Your task to perform on an android device: What's the weather going to be this weekend? Image 0: 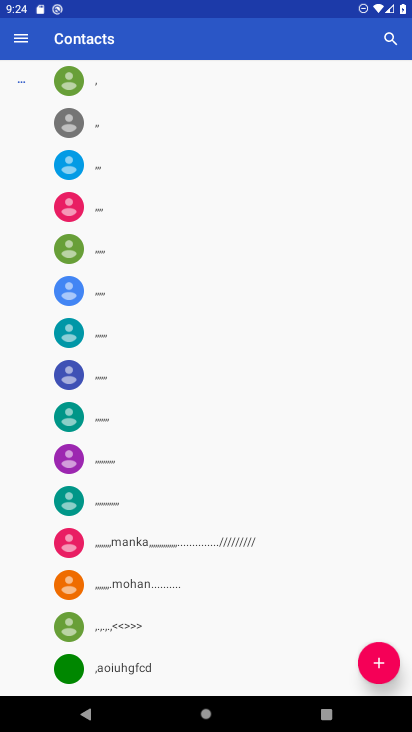
Step 0: press home button
Your task to perform on an android device: What's the weather going to be this weekend? Image 1: 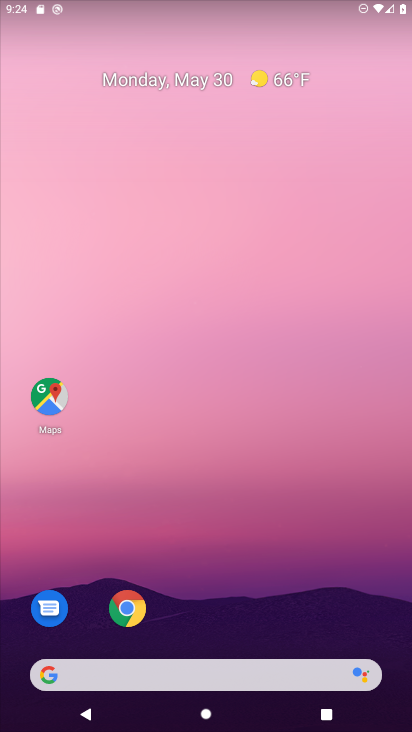
Step 1: drag from (229, 722) to (231, 150)
Your task to perform on an android device: What's the weather going to be this weekend? Image 2: 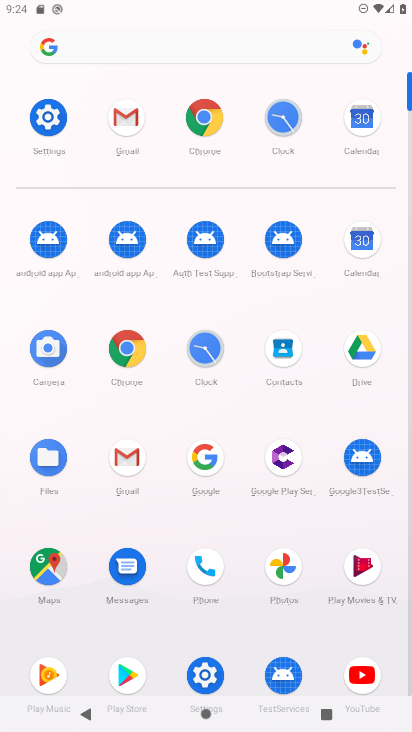
Step 2: click (204, 463)
Your task to perform on an android device: What's the weather going to be this weekend? Image 3: 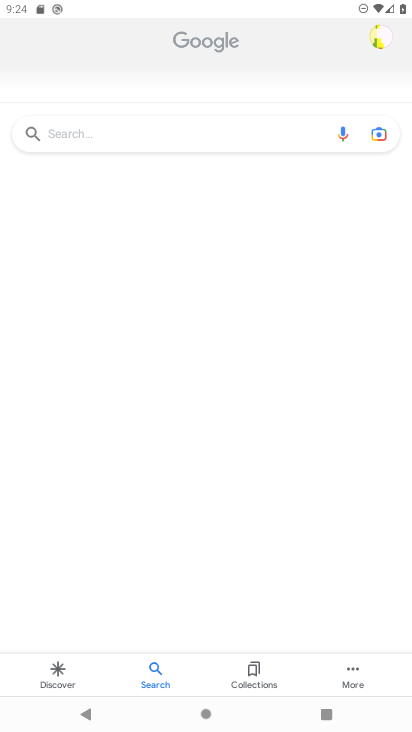
Step 3: click (149, 131)
Your task to perform on an android device: What's the weather going to be this weekend? Image 4: 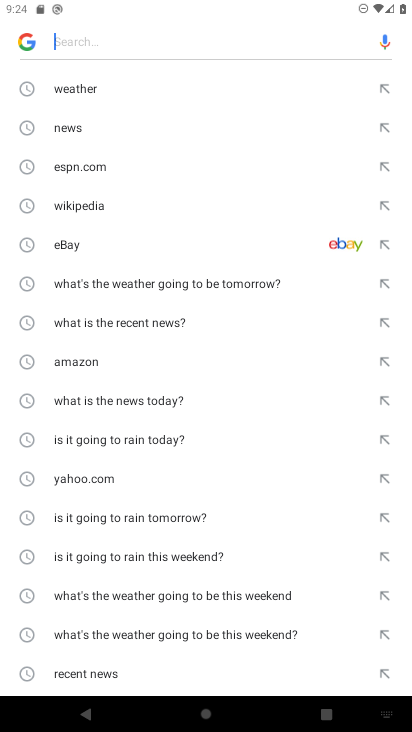
Step 4: click (86, 92)
Your task to perform on an android device: What's the weather going to be this weekend? Image 5: 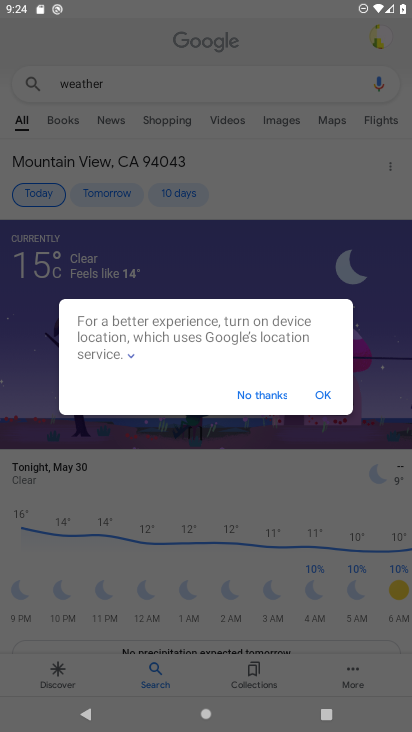
Step 5: click (262, 394)
Your task to perform on an android device: What's the weather going to be this weekend? Image 6: 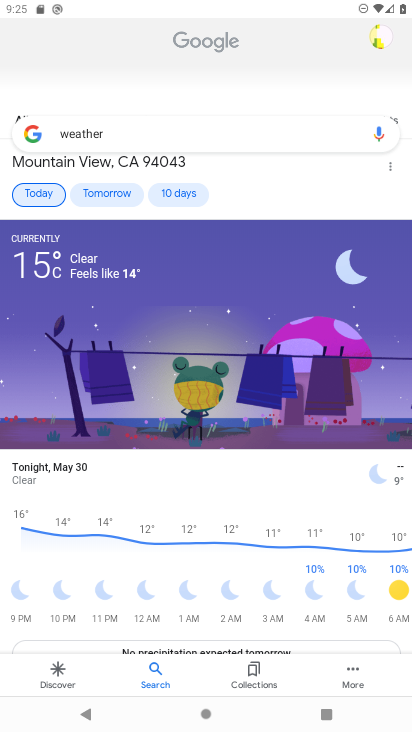
Step 6: click (169, 192)
Your task to perform on an android device: What's the weather going to be this weekend? Image 7: 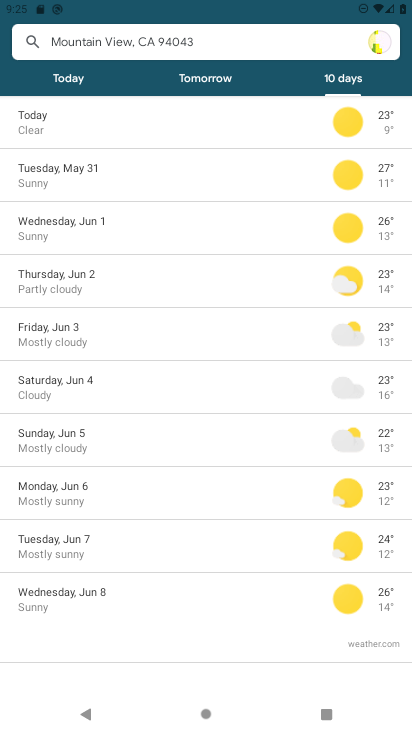
Step 7: click (70, 386)
Your task to perform on an android device: What's the weather going to be this weekend? Image 8: 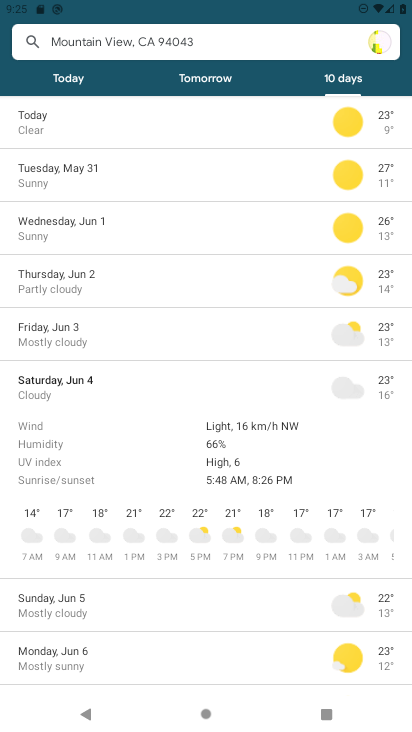
Step 8: task complete